Your task to perform on an android device: turn on notifications settings in the gmail app Image 0: 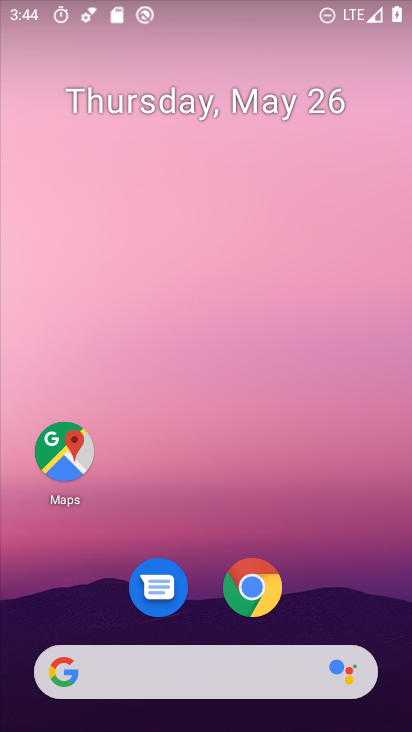
Step 0: drag from (325, 615) to (270, 121)
Your task to perform on an android device: turn on notifications settings in the gmail app Image 1: 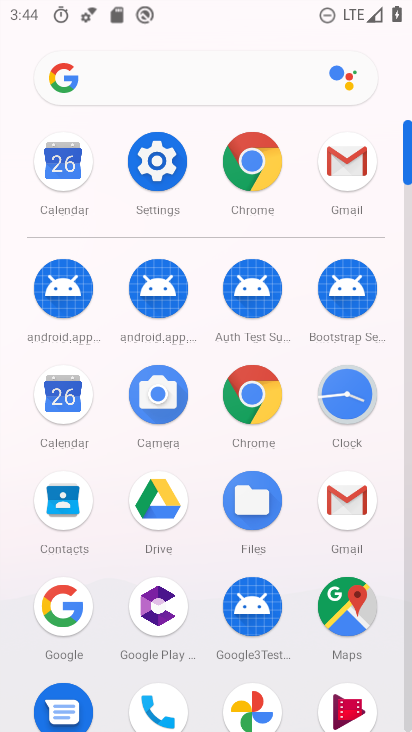
Step 1: click (343, 172)
Your task to perform on an android device: turn on notifications settings in the gmail app Image 2: 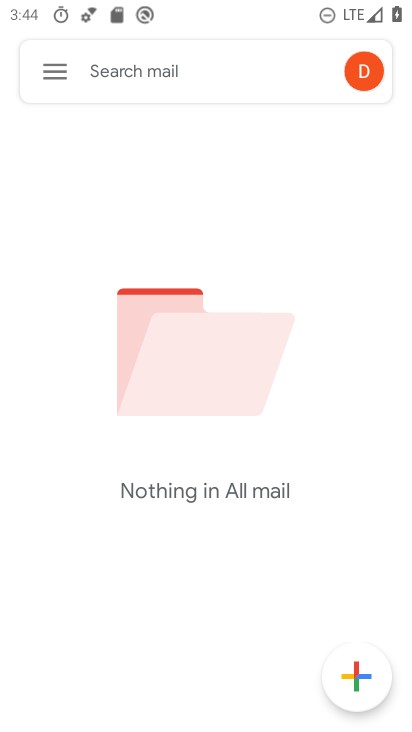
Step 2: click (62, 82)
Your task to perform on an android device: turn on notifications settings in the gmail app Image 3: 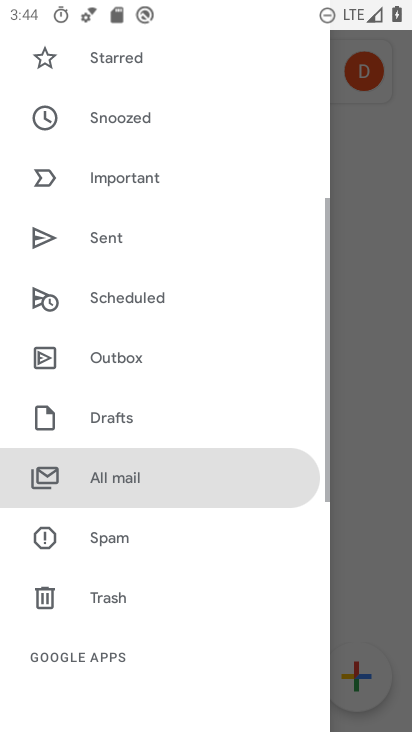
Step 3: drag from (146, 584) to (177, 119)
Your task to perform on an android device: turn on notifications settings in the gmail app Image 4: 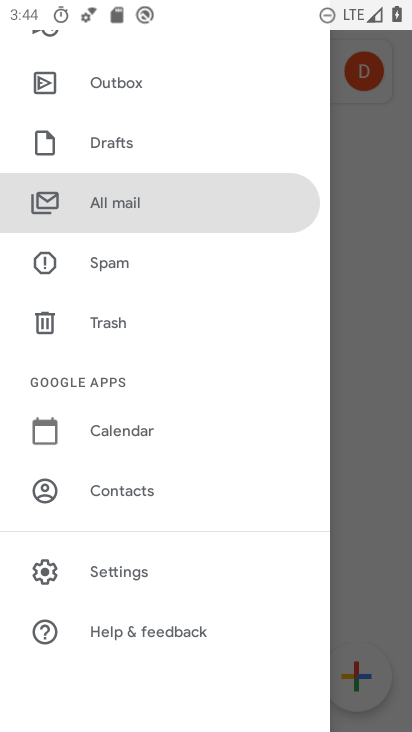
Step 4: click (105, 582)
Your task to perform on an android device: turn on notifications settings in the gmail app Image 5: 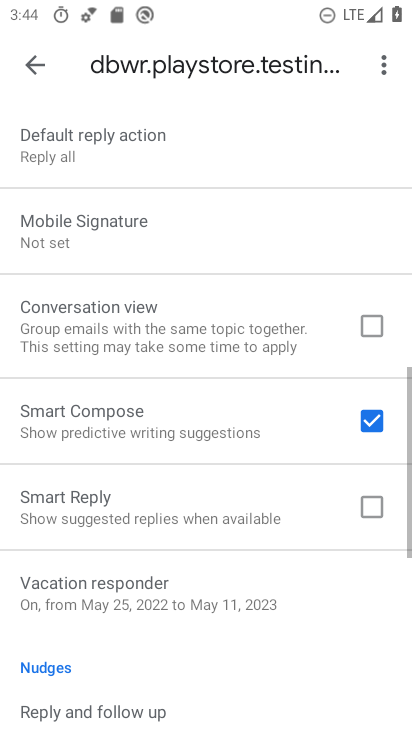
Step 5: drag from (160, 202) to (150, 722)
Your task to perform on an android device: turn on notifications settings in the gmail app Image 6: 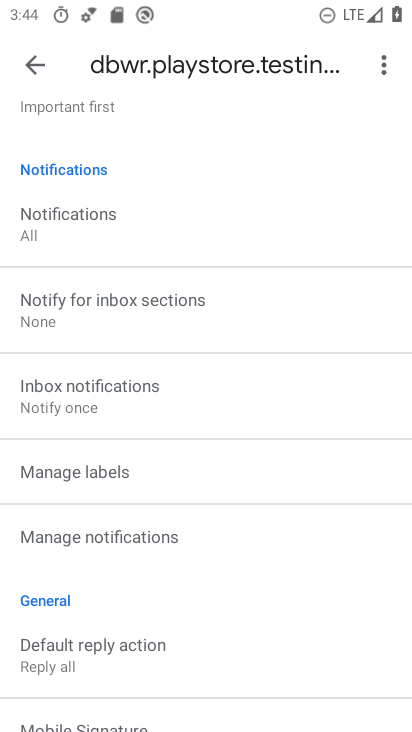
Step 6: drag from (148, 222) to (141, 278)
Your task to perform on an android device: turn on notifications settings in the gmail app Image 7: 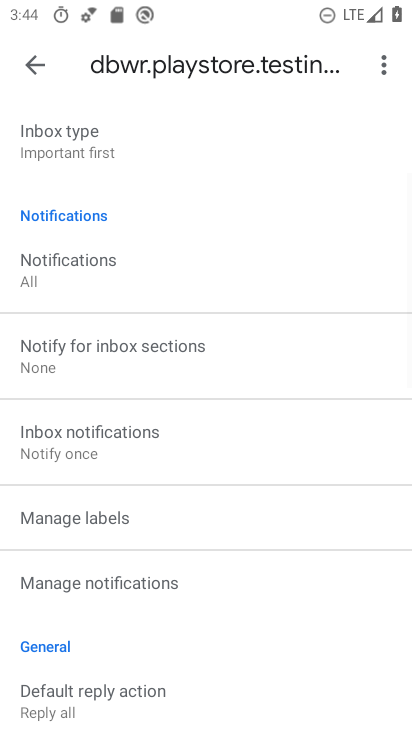
Step 7: click (108, 588)
Your task to perform on an android device: turn on notifications settings in the gmail app Image 8: 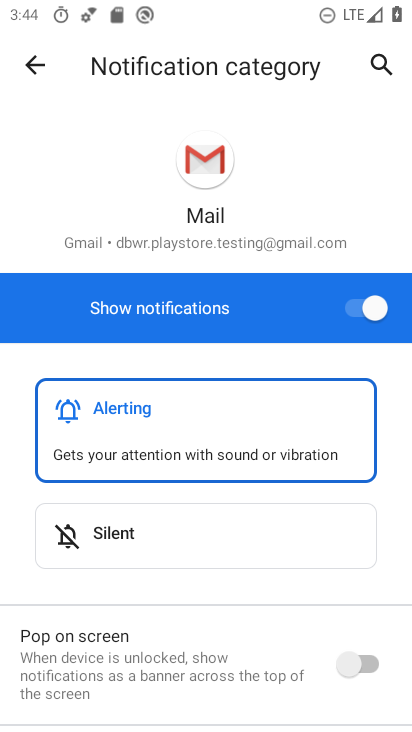
Step 8: task complete